Your task to perform on an android device: turn vacation reply on in the gmail app Image 0: 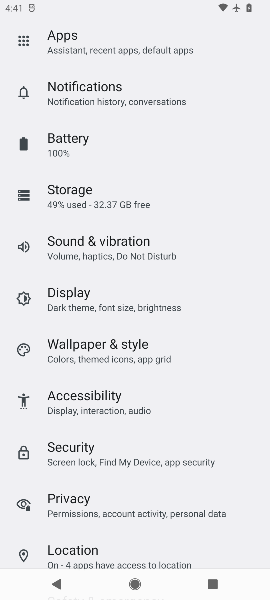
Step 0: press home button
Your task to perform on an android device: turn vacation reply on in the gmail app Image 1: 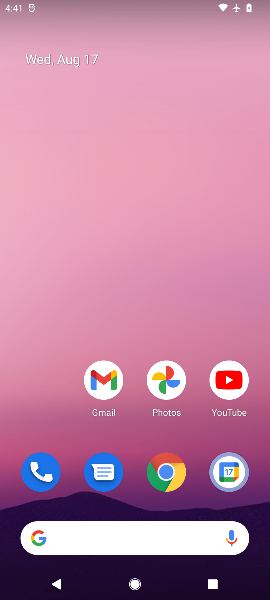
Step 1: click (111, 398)
Your task to perform on an android device: turn vacation reply on in the gmail app Image 2: 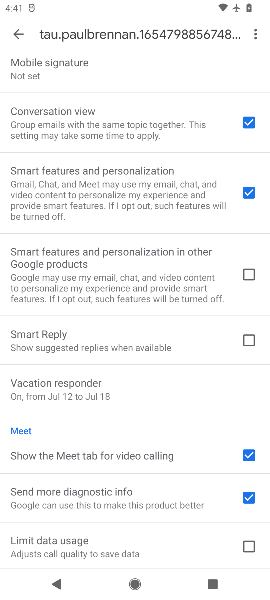
Step 2: click (64, 391)
Your task to perform on an android device: turn vacation reply on in the gmail app Image 3: 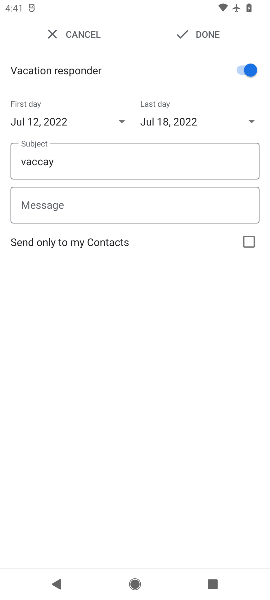
Step 3: task complete